Your task to perform on an android device: Turn off the flashlight Image 0: 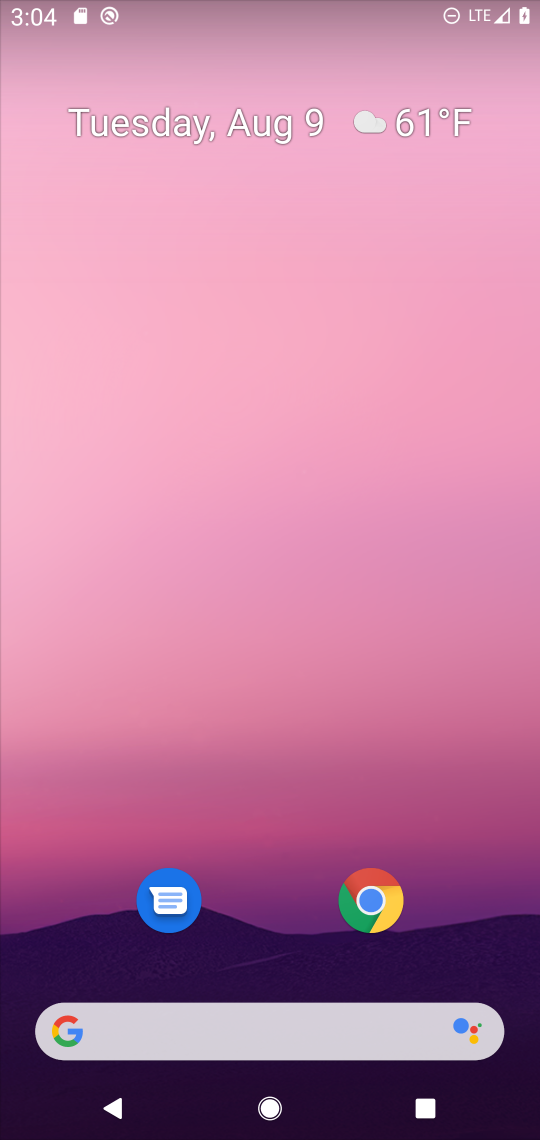
Step 0: press home button
Your task to perform on an android device: Turn off the flashlight Image 1: 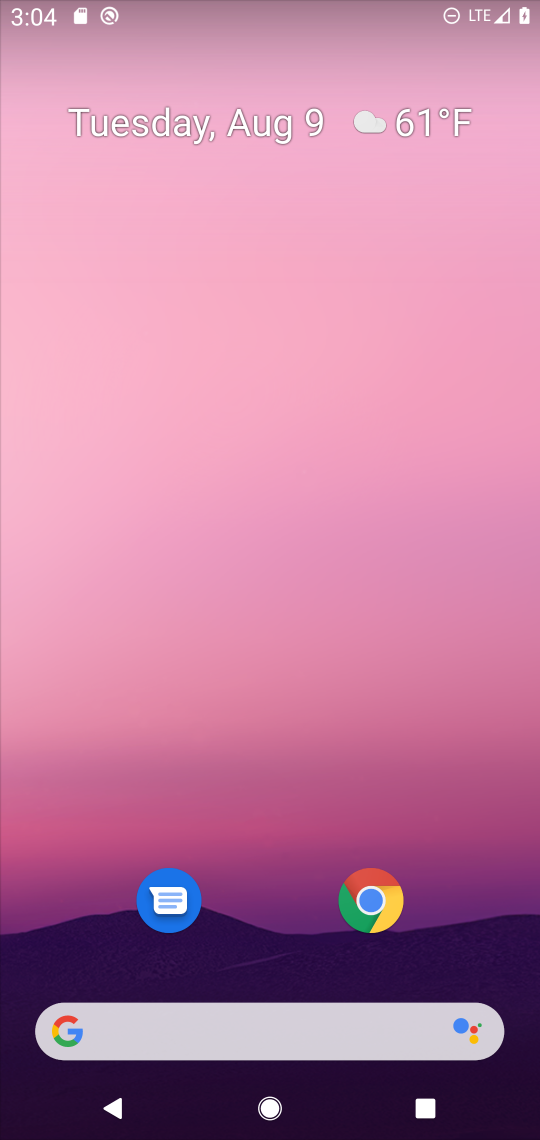
Step 1: task complete